Your task to perform on an android device: turn off javascript in the chrome app Image 0: 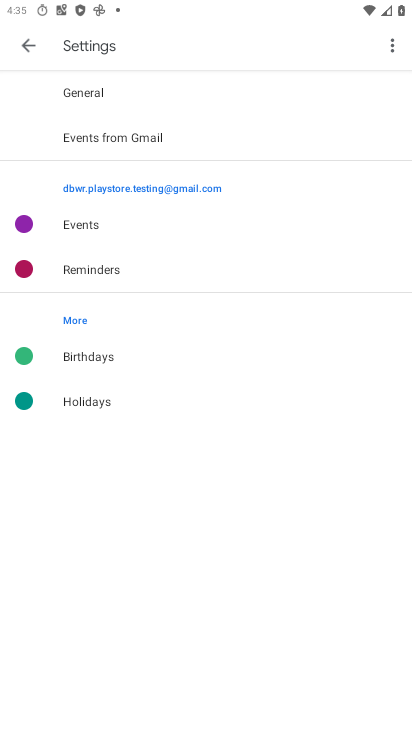
Step 0: press home button
Your task to perform on an android device: turn off javascript in the chrome app Image 1: 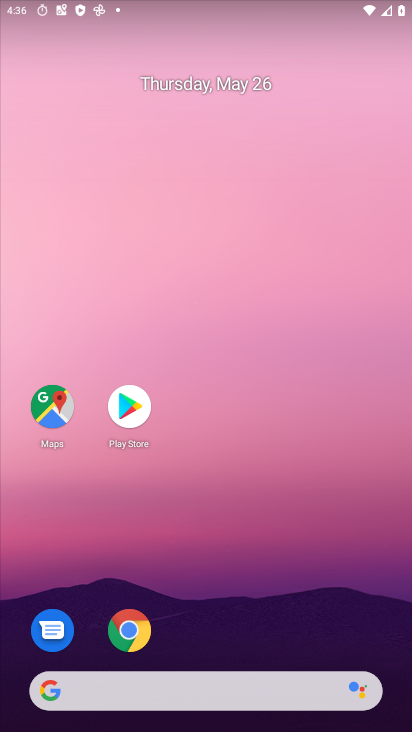
Step 1: click (134, 627)
Your task to perform on an android device: turn off javascript in the chrome app Image 2: 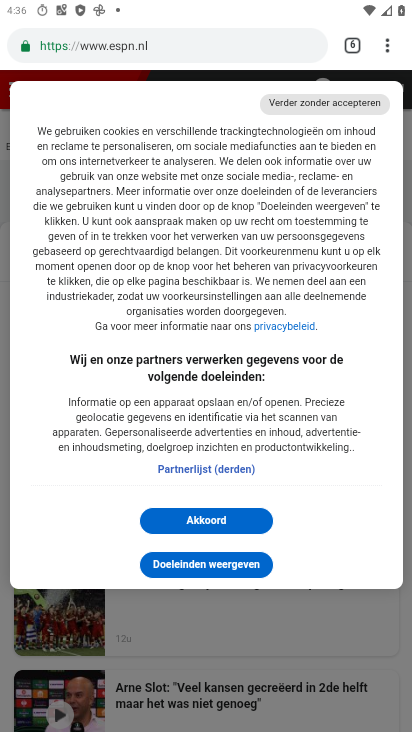
Step 2: click (392, 47)
Your task to perform on an android device: turn off javascript in the chrome app Image 3: 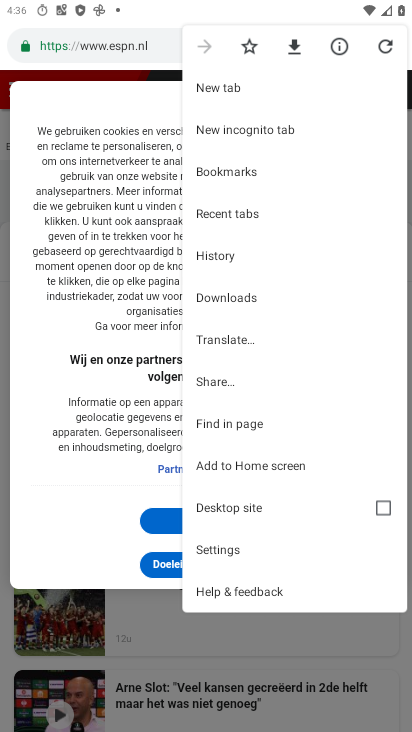
Step 3: click (225, 552)
Your task to perform on an android device: turn off javascript in the chrome app Image 4: 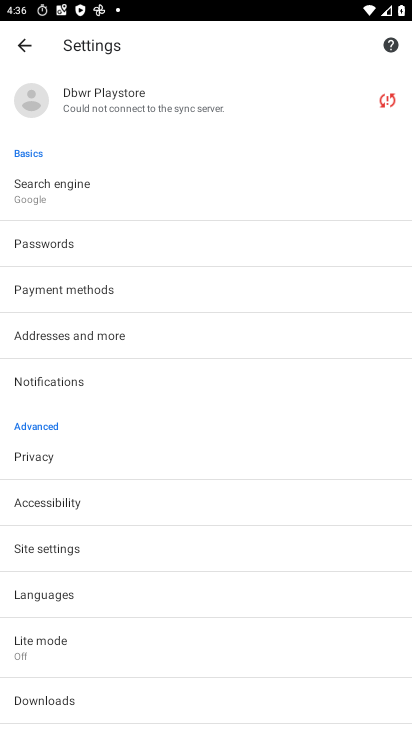
Step 4: click (63, 552)
Your task to perform on an android device: turn off javascript in the chrome app Image 5: 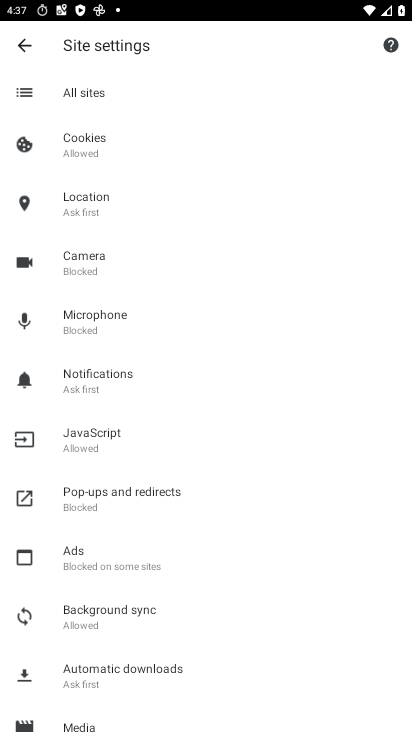
Step 5: click (99, 439)
Your task to perform on an android device: turn off javascript in the chrome app Image 6: 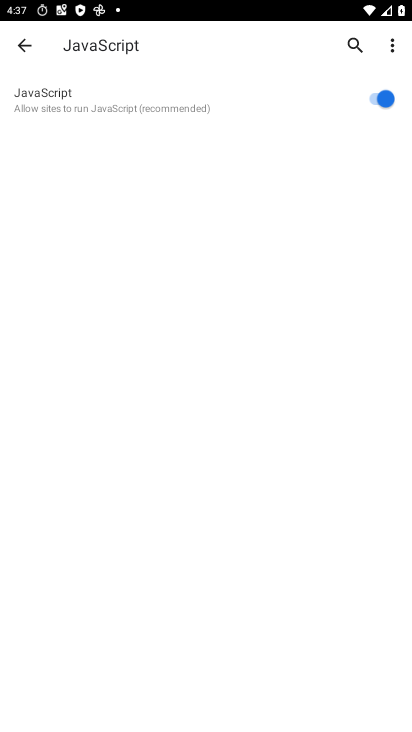
Step 6: click (374, 95)
Your task to perform on an android device: turn off javascript in the chrome app Image 7: 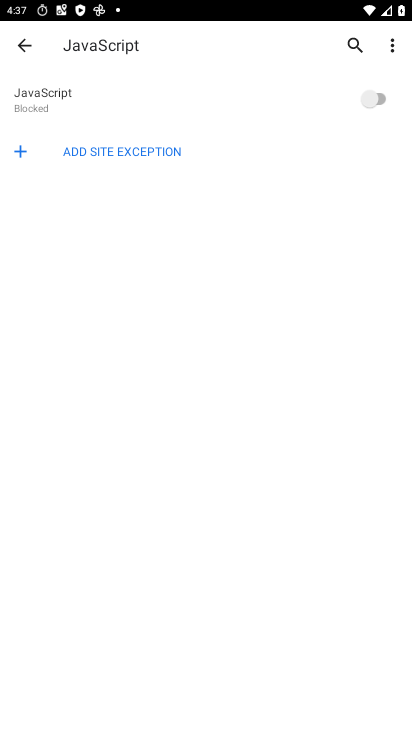
Step 7: task complete